Your task to perform on an android device: Go to CNN.com Image 0: 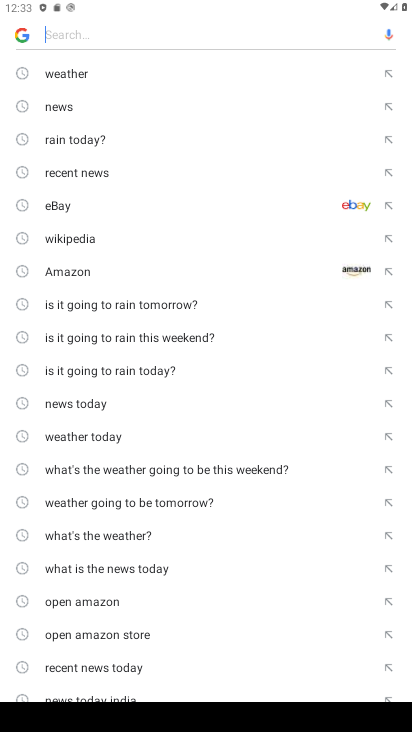
Step 0: type "cnn.com"
Your task to perform on an android device: Go to CNN.com Image 1: 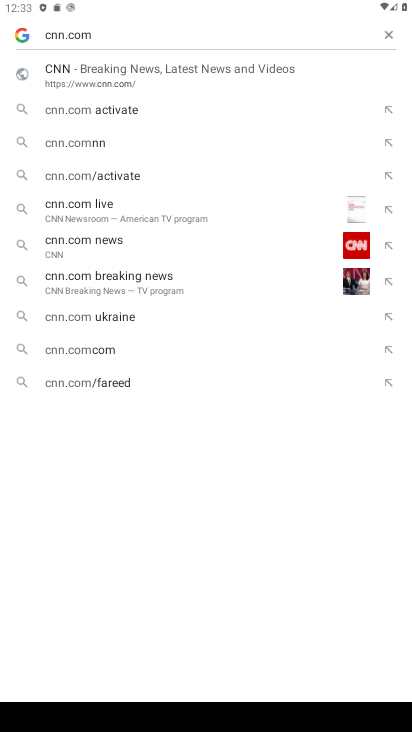
Step 1: click (109, 82)
Your task to perform on an android device: Go to CNN.com Image 2: 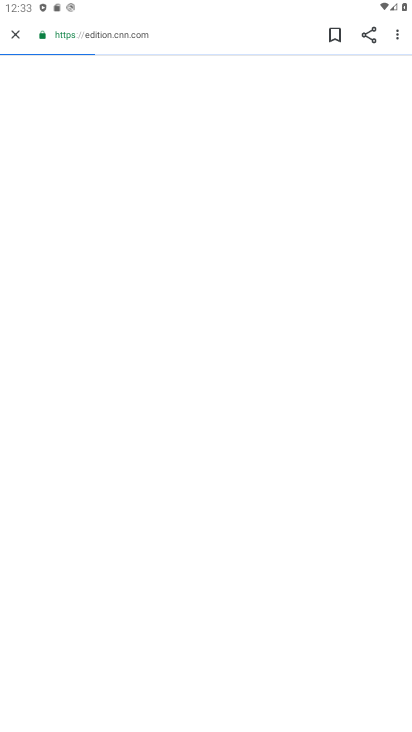
Step 2: task complete